Your task to perform on an android device: Open Google Chrome and open the bookmarks view Image 0: 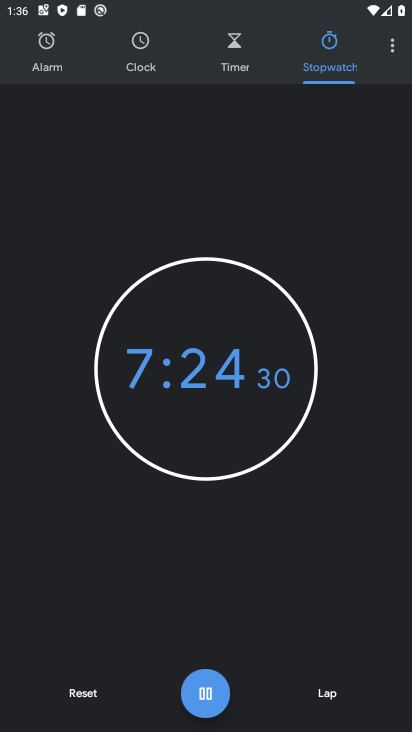
Step 0: press home button
Your task to perform on an android device: Open Google Chrome and open the bookmarks view Image 1: 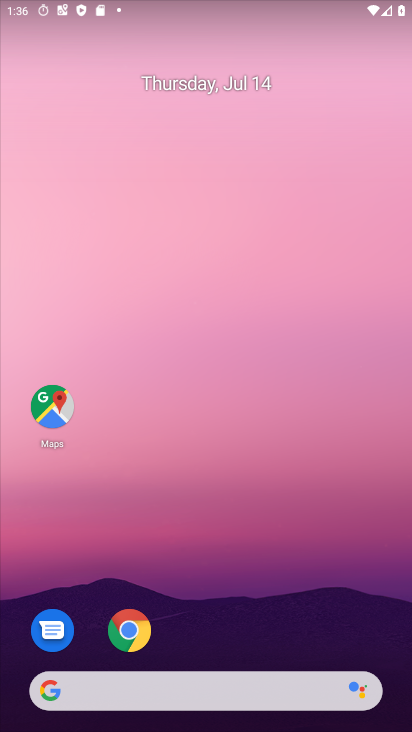
Step 1: click (138, 635)
Your task to perform on an android device: Open Google Chrome and open the bookmarks view Image 2: 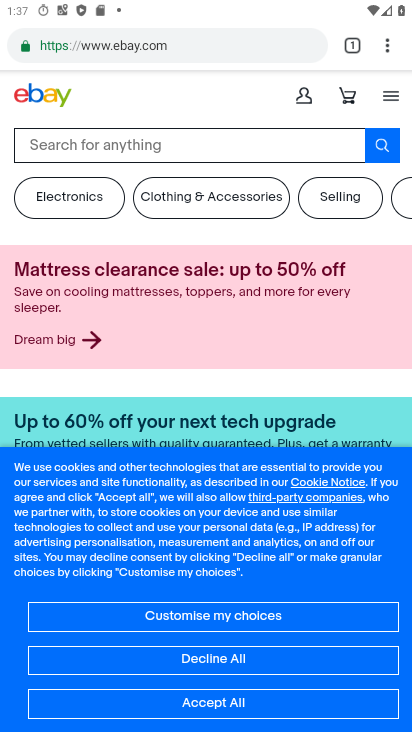
Step 2: drag from (388, 45) to (269, 171)
Your task to perform on an android device: Open Google Chrome and open the bookmarks view Image 3: 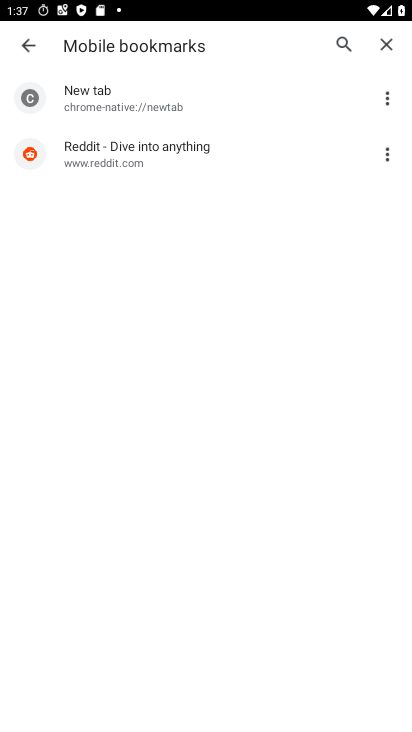
Step 3: click (196, 154)
Your task to perform on an android device: Open Google Chrome and open the bookmarks view Image 4: 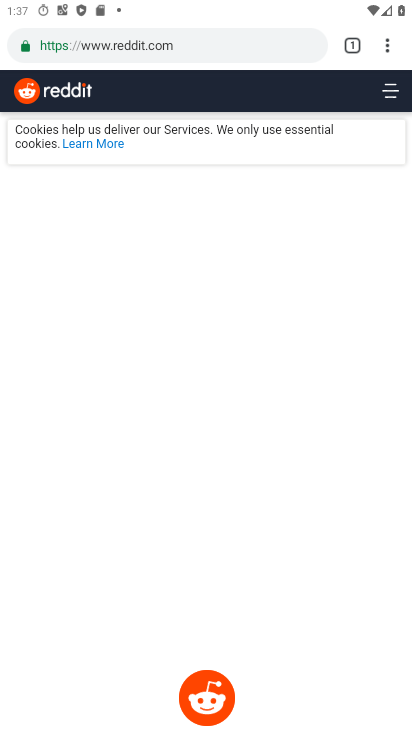
Step 4: task complete